Your task to perform on an android device: Search for vegetarian restaurants on Maps Image 0: 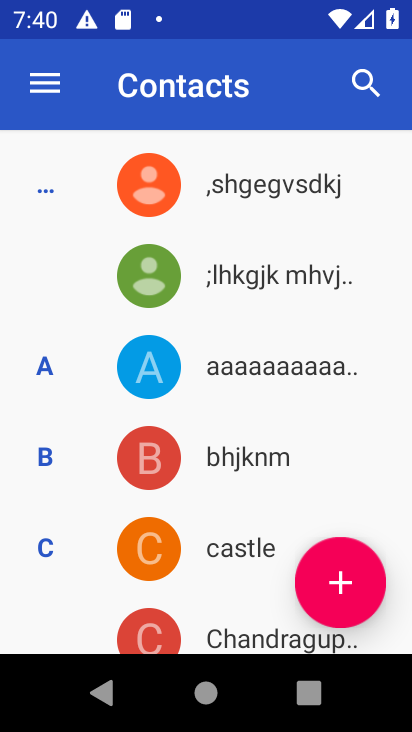
Step 0: task complete